Your task to perform on an android device: Open Yahoo.com Image 0: 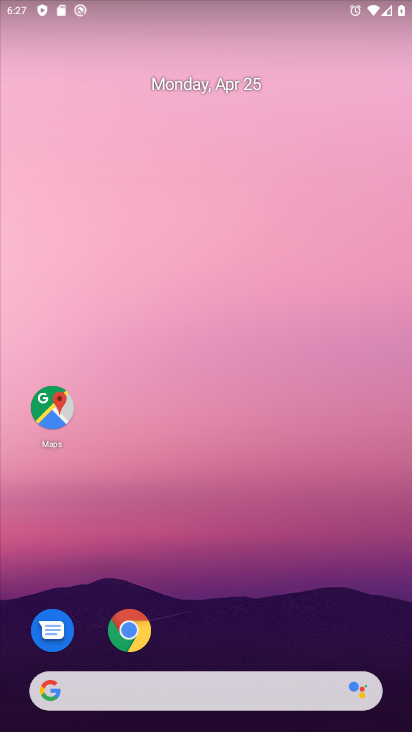
Step 0: click (132, 626)
Your task to perform on an android device: Open Yahoo.com Image 1: 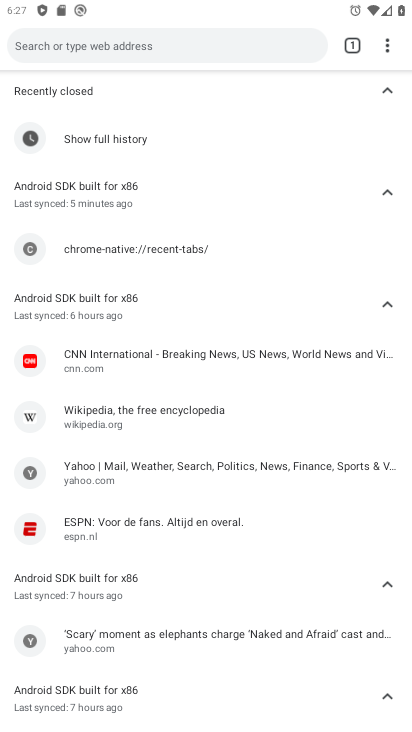
Step 1: press home button
Your task to perform on an android device: Open Yahoo.com Image 2: 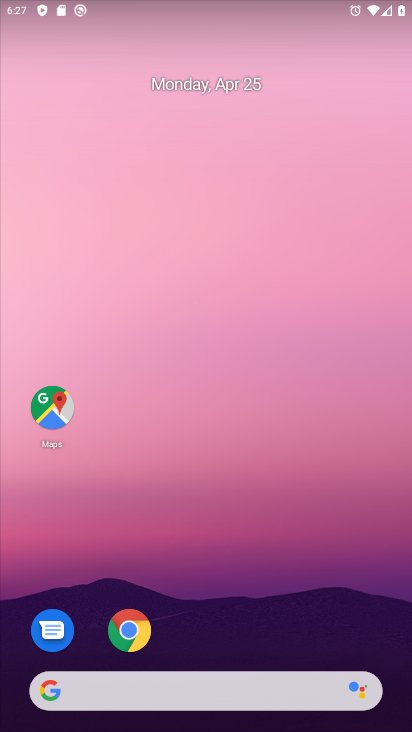
Step 2: click (236, 582)
Your task to perform on an android device: Open Yahoo.com Image 3: 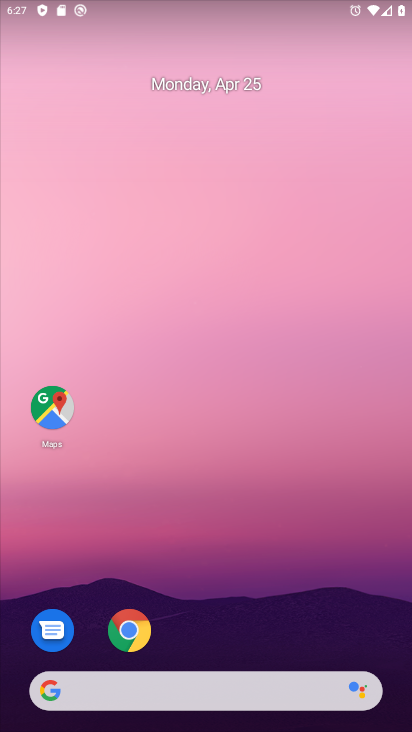
Step 3: click (125, 621)
Your task to perform on an android device: Open Yahoo.com Image 4: 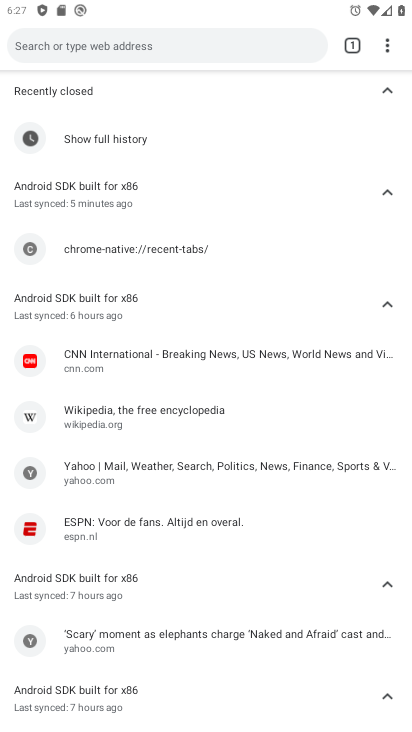
Step 4: click (344, 46)
Your task to perform on an android device: Open Yahoo.com Image 5: 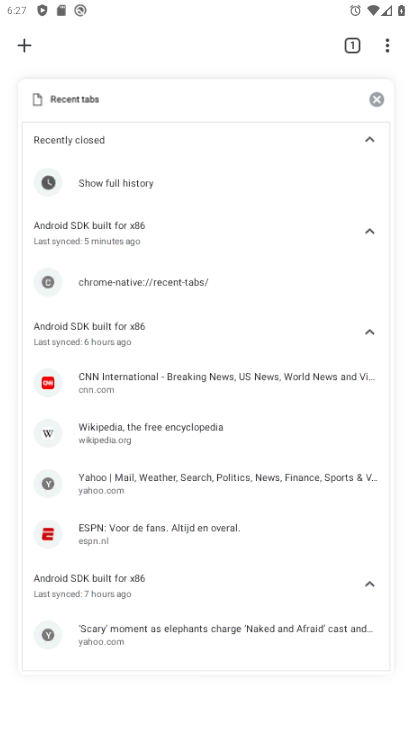
Step 5: click (21, 39)
Your task to perform on an android device: Open Yahoo.com Image 6: 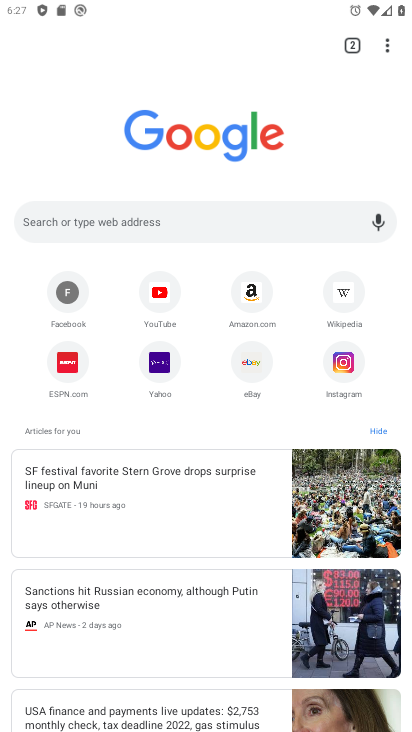
Step 6: click (150, 360)
Your task to perform on an android device: Open Yahoo.com Image 7: 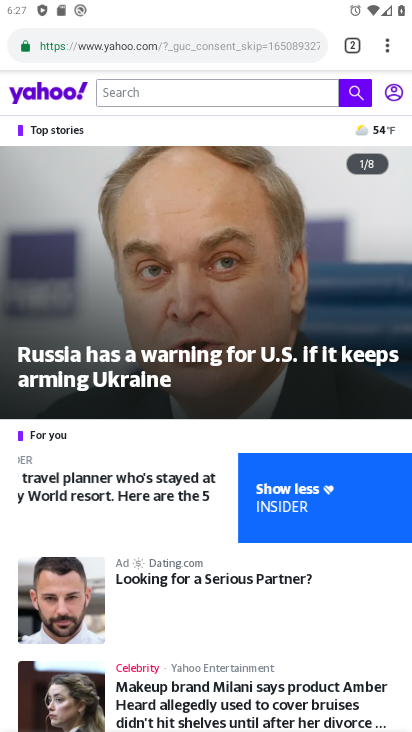
Step 7: task complete